Your task to perform on an android device: Go to internet settings Image 0: 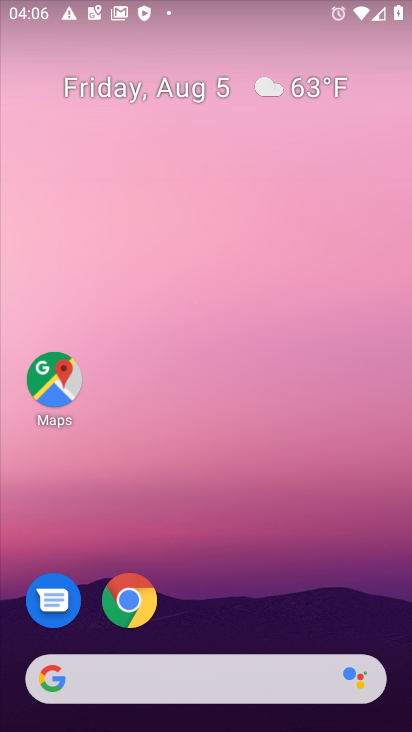
Step 0: drag from (175, 673) to (194, 67)
Your task to perform on an android device: Go to internet settings Image 1: 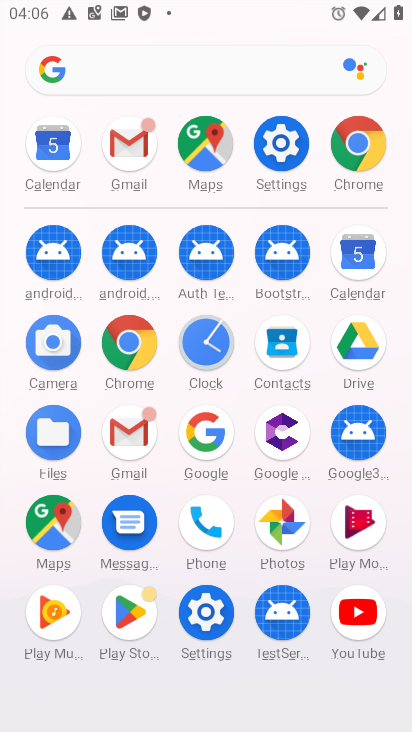
Step 1: click (279, 144)
Your task to perform on an android device: Go to internet settings Image 2: 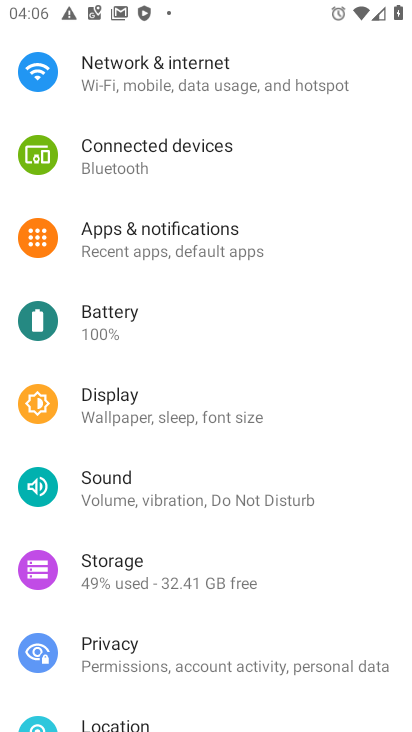
Step 2: drag from (190, 112) to (253, 327)
Your task to perform on an android device: Go to internet settings Image 3: 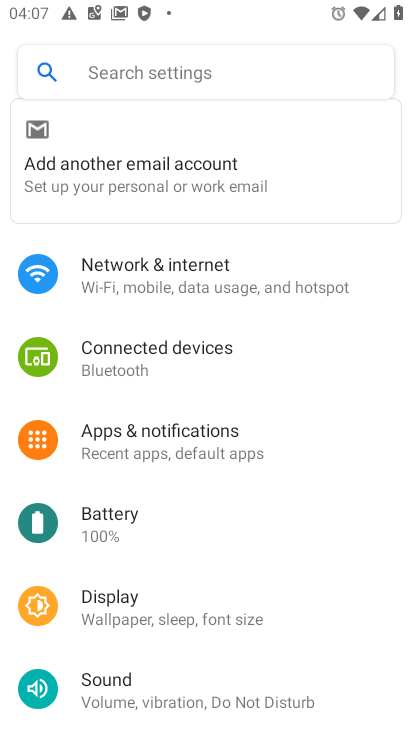
Step 3: click (188, 281)
Your task to perform on an android device: Go to internet settings Image 4: 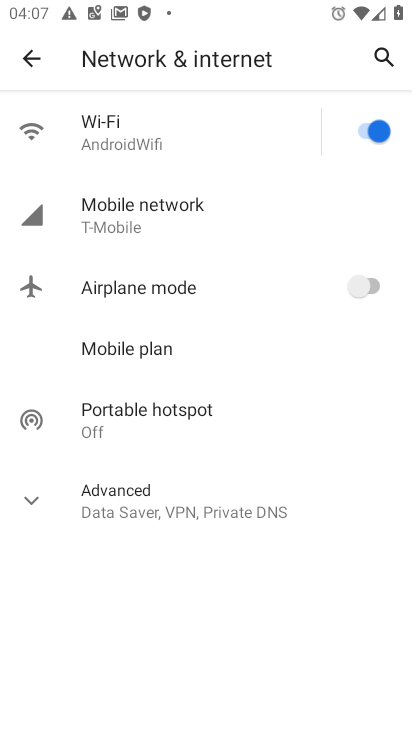
Step 4: click (132, 130)
Your task to perform on an android device: Go to internet settings Image 5: 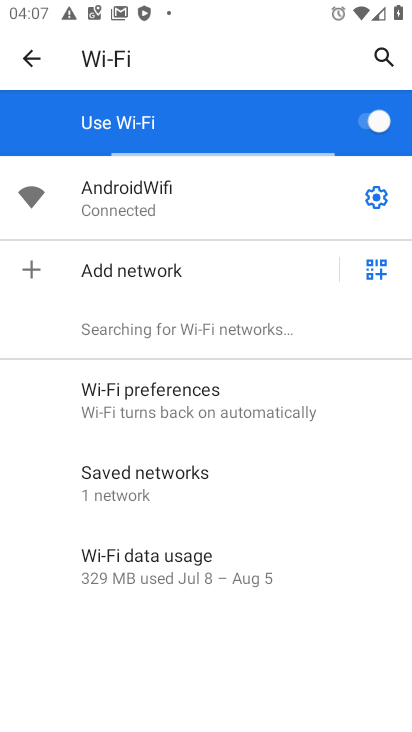
Step 5: task complete